Your task to perform on an android device: allow cookies in the chrome app Image 0: 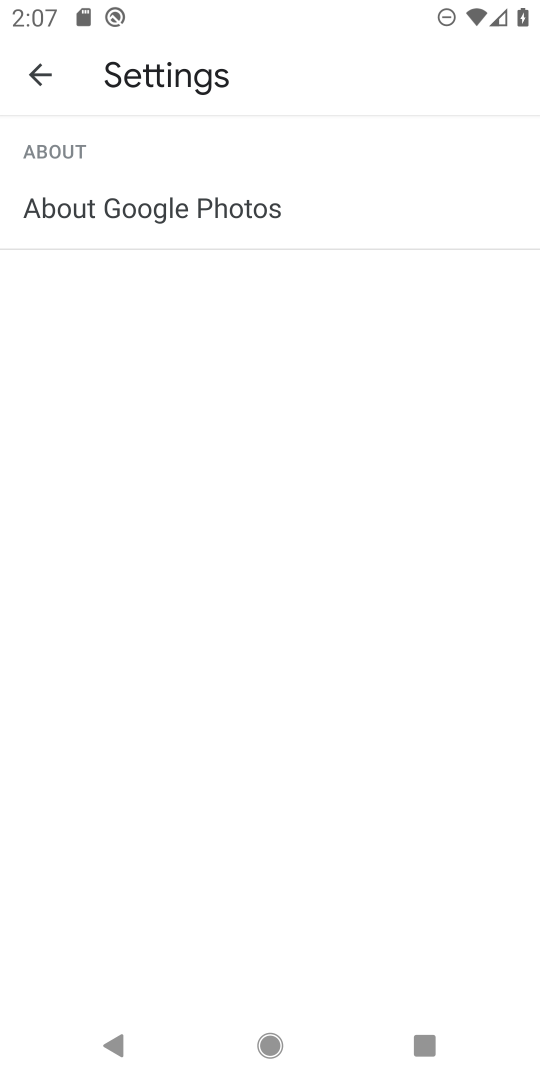
Step 0: press home button
Your task to perform on an android device: allow cookies in the chrome app Image 1: 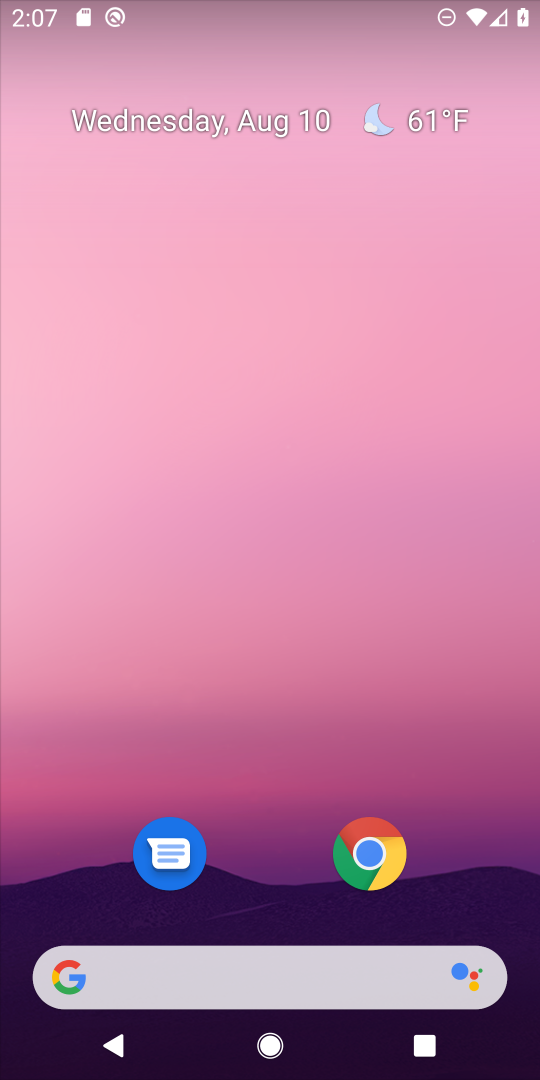
Step 1: click (374, 876)
Your task to perform on an android device: allow cookies in the chrome app Image 2: 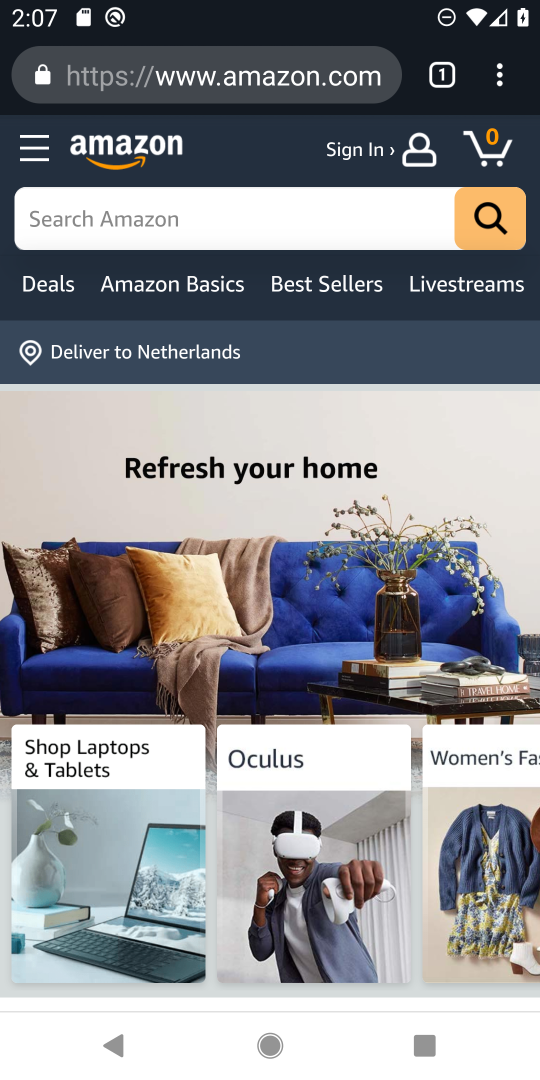
Step 2: click (512, 97)
Your task to perform on an android device: allow cookies in the chrome app Image 3: 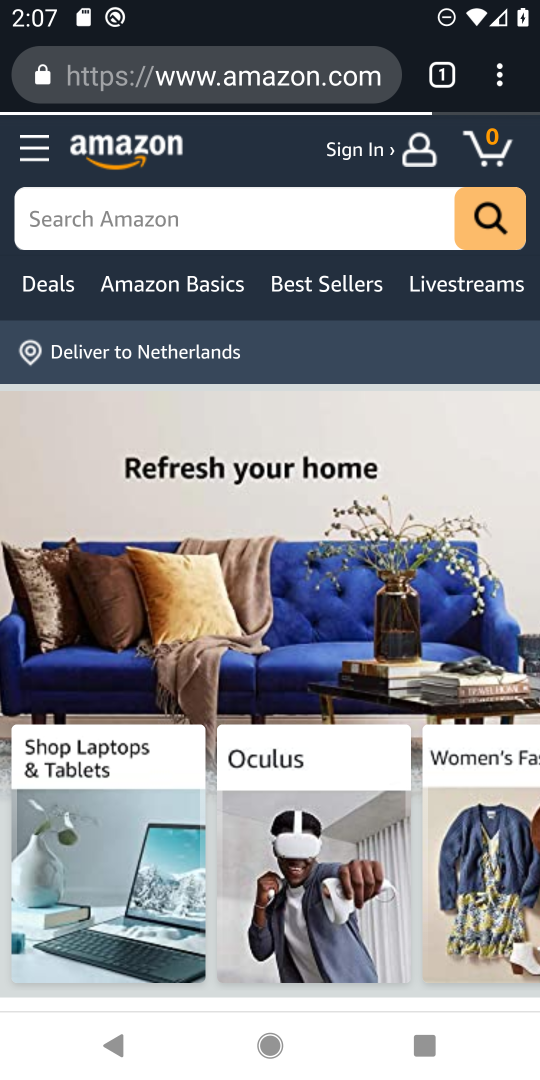
Step 3: click (511, 78)
Your task to perform on an android device: allow cookies in the chrome app Image 4: 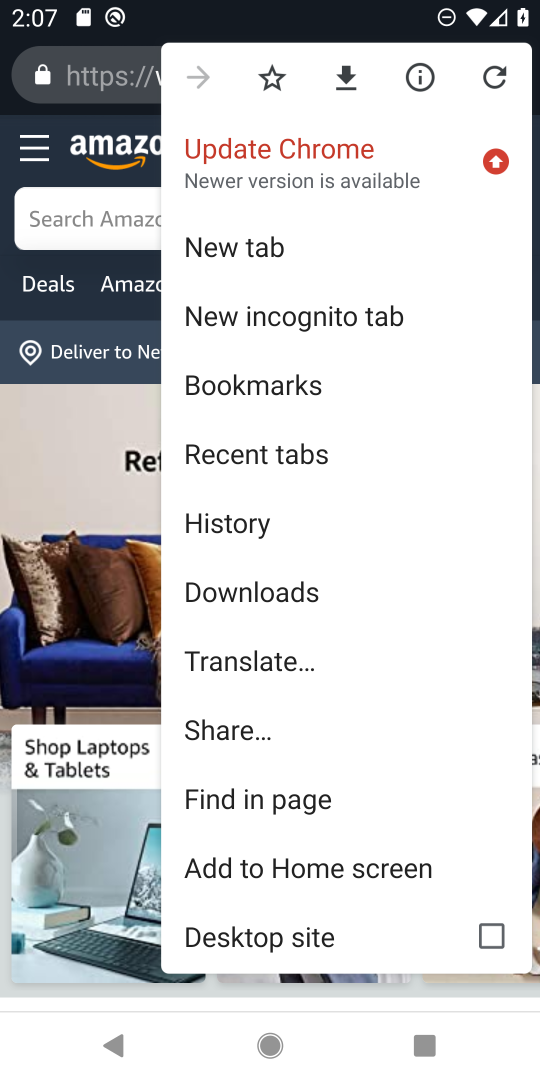
Step 4: click (236, 524)
Your task to perform on an android device: allow cookies in the chrome app Image 5: 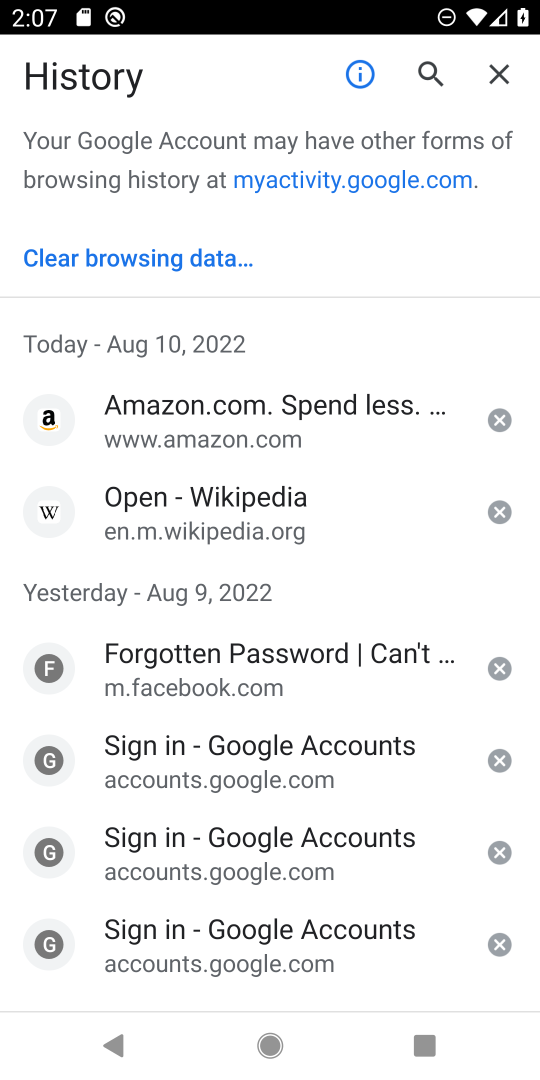
Step 5: click (131, 255)
Your task to perform on an android device: allow cookies in the chrome app Image 6: 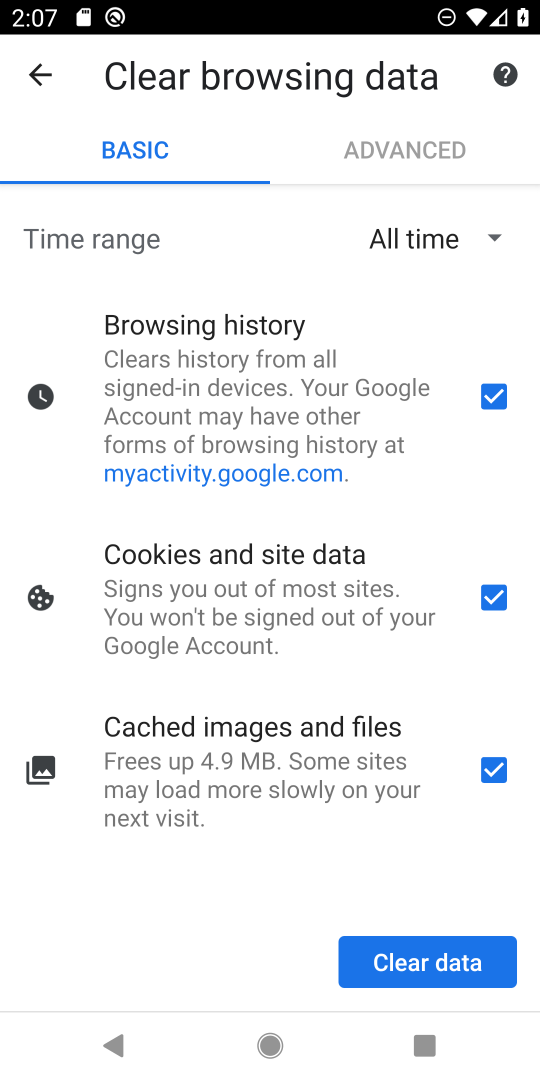
Step 6: click (483, 391)
Your task to perform on an android device: allow cookies in the chrome app Image 7: 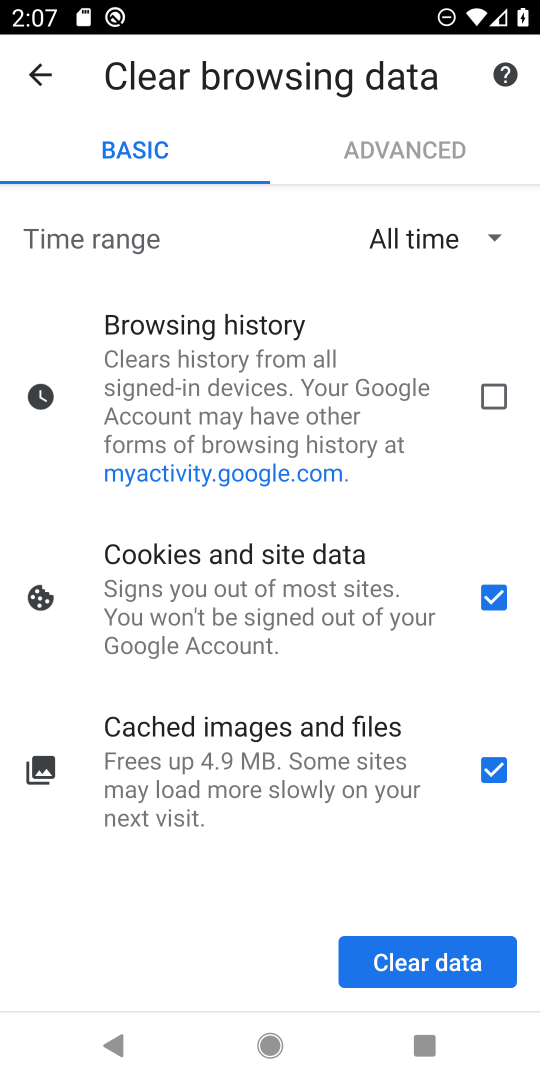
Step 7: click (492, 767)
Your task to perform on an android device: allow cookies in the chrome app Image 8: 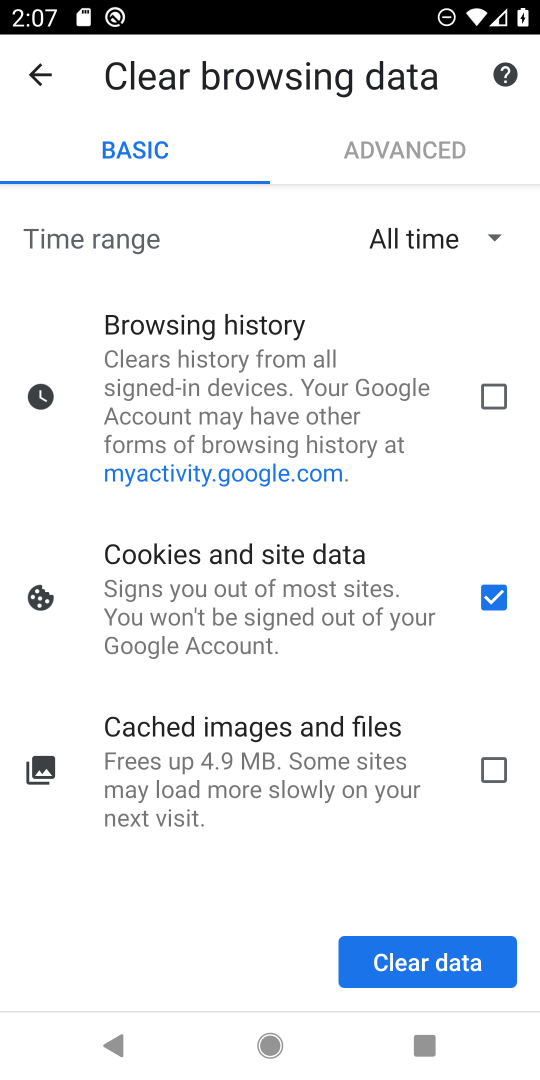
Step 8: click (446, 972)
Your task to perform on an android device: allow cookies in the chrome app Image 9: 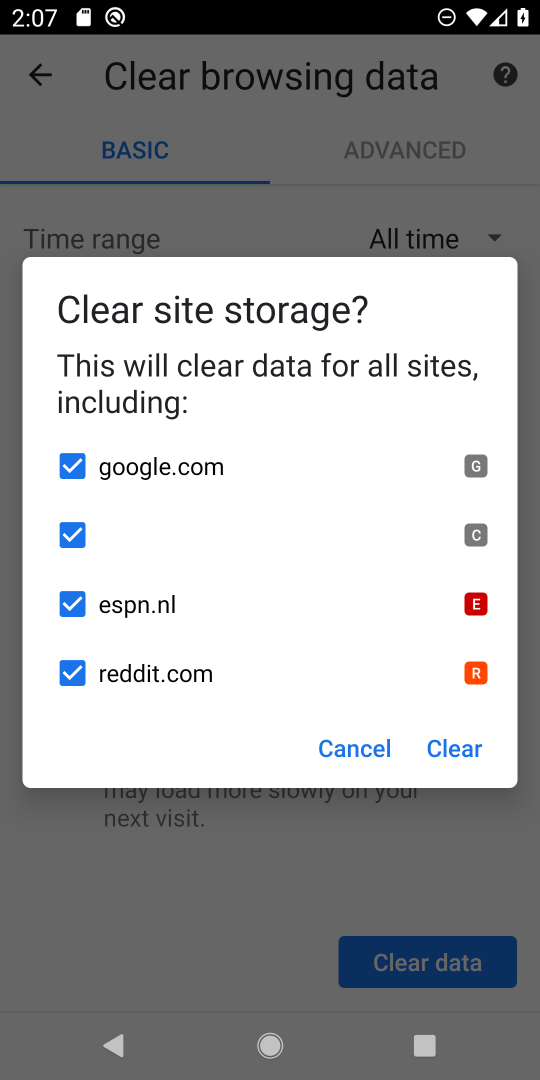
Step 9: click (457, 759)
Your task to perform on an android device: allow cookies in the chrome app Image 10: 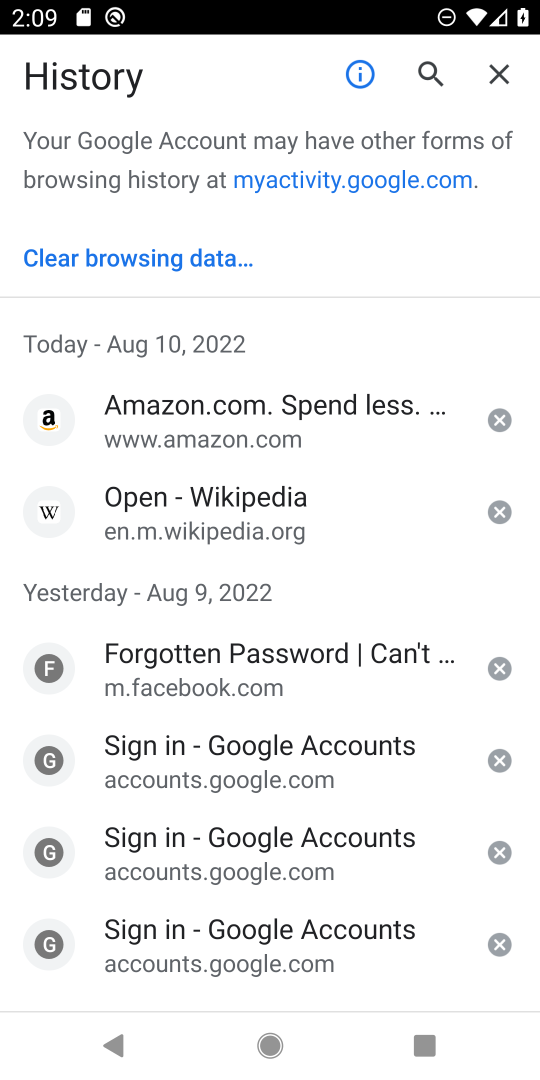
Step 10: task complete